Your task to perform on an android device: toggle translation in the chrome app Image 0: 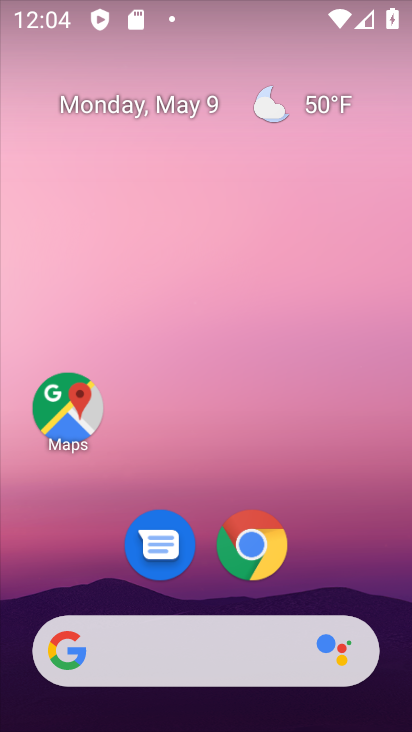
Step 0: click (256, 526)
Your task to perform on an android device: toggle translation in the chrome app Image 1: 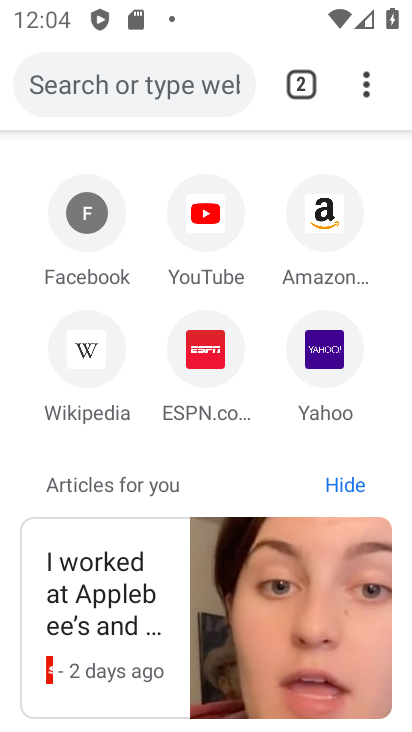
Step 1: click (361, 84)
Your task to perform on an android device: toggle translation in the chrome app Image 2: 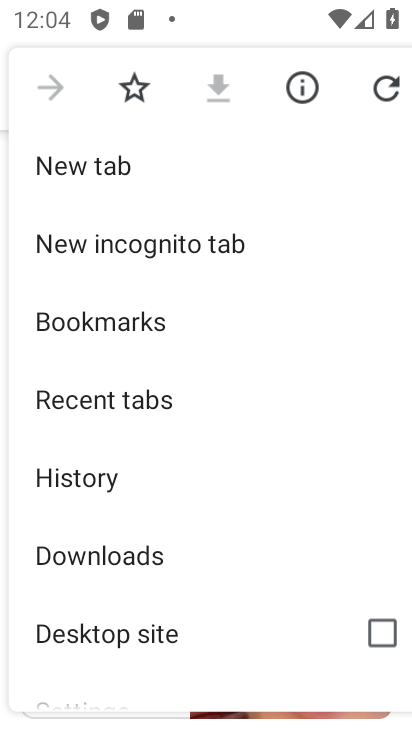
Step 2: drag from (138, 606) to (180, 309)
Your task to perform on an android device: toggle translation in the chrome app Image 3: 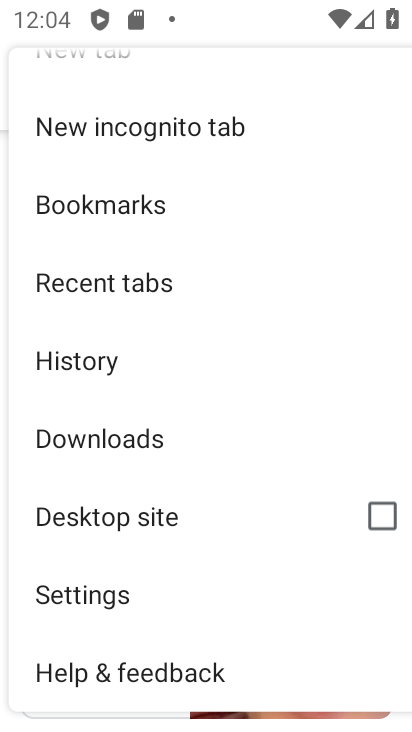
Step 3: drag from (138, 620) to (198, 393)
Your task to perform on an android device: toggle translation in the chrome app Image 4: 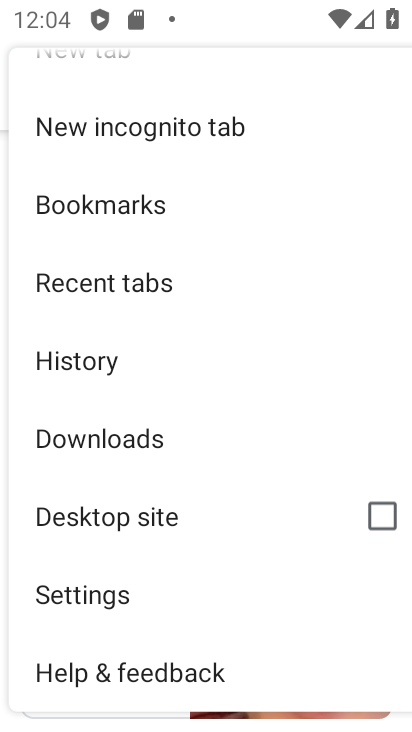
Step 4: drag from (149, 592) to (181, 314)
Your task to perform on an android device: toggle translation in the chrome app Image 5: 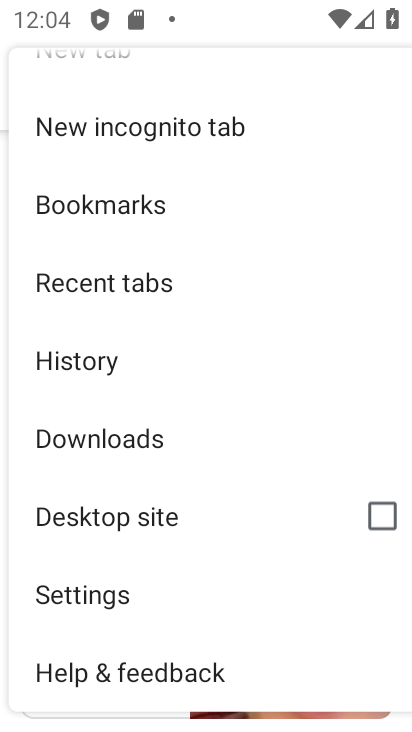
Step 5: click (93, 589)
Your task to perform on an android device: toggle translation in the chrome app Image 6: 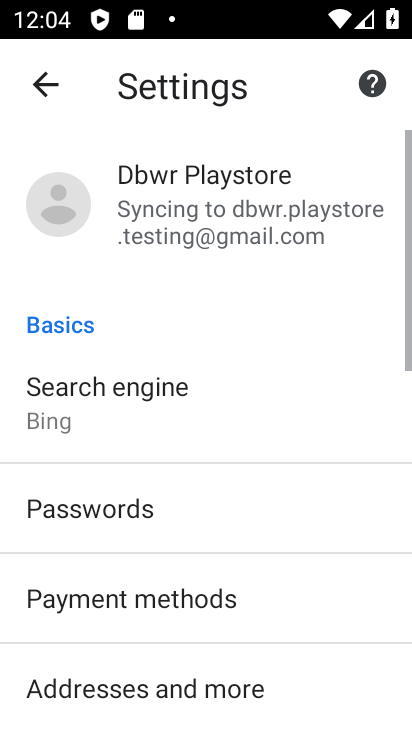
Step 6: drag from (188, 625) to (209, 332)
Your task to perform on an android device: toggle translation in the chrome app Image 7: 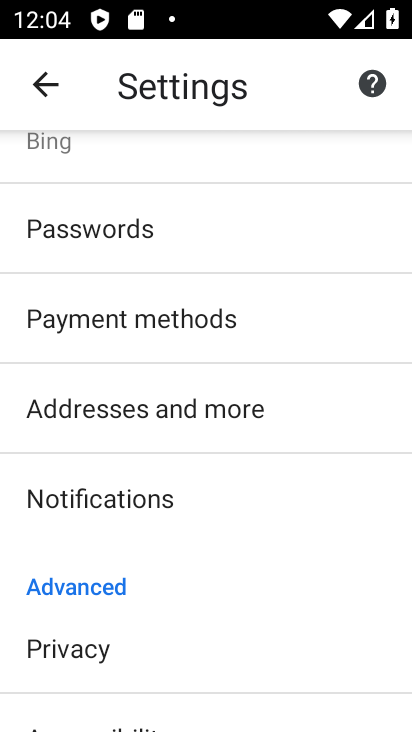
Step 7: drag from (167, 590) to (208, 238)
Your task to perform on an android device: toggle translation in the chrome app Image 8: 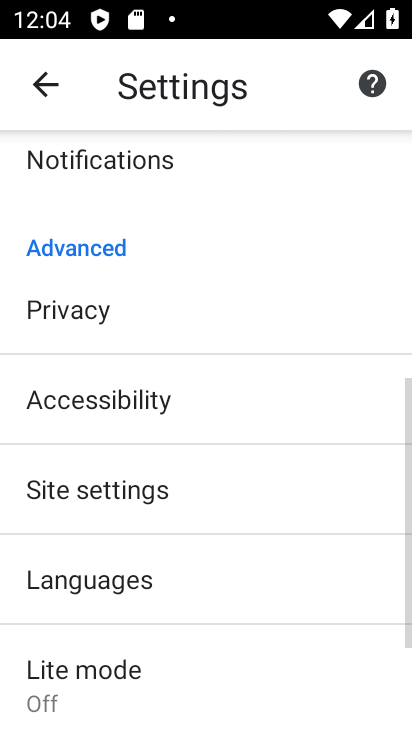
Step 8: click (147, 587)
Your task to perform on an android device: toggle translation in the chrome app Image 9: 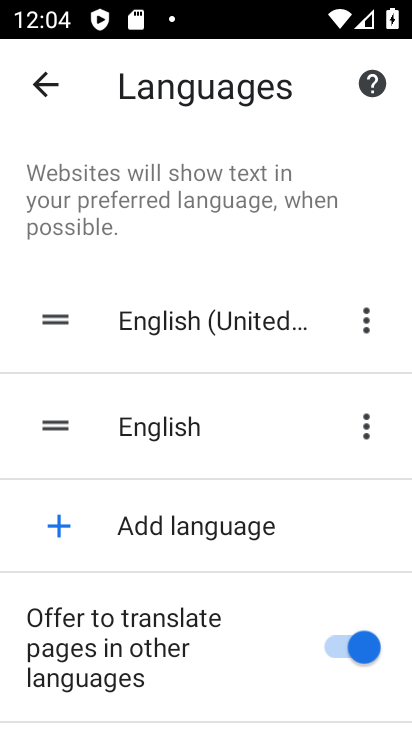
Step 9: click (321, 645)
Your task to perform on an android device: toggle translation in the chrome app Image 10: 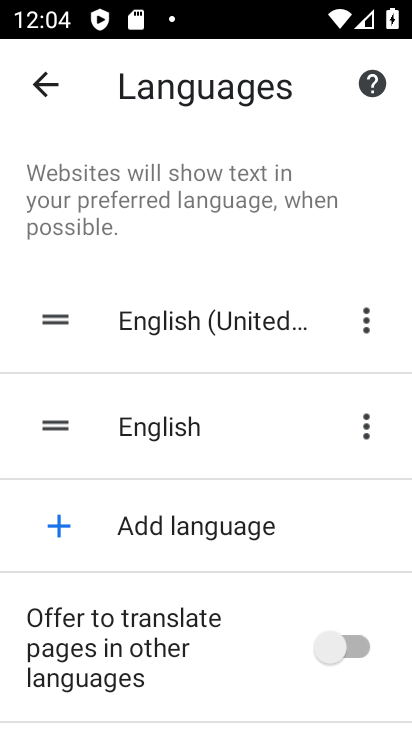
Step 10: task complete